Your task to perform on an android device: see creations saved in the google photos Image 0: 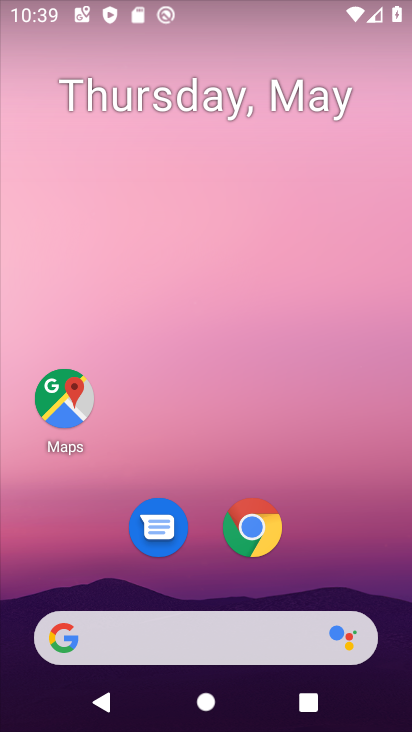
Step 0: drag from (335, 527) to (356, 128)
Your task to perform on an android device: see creations saved in the google photos Image 1: 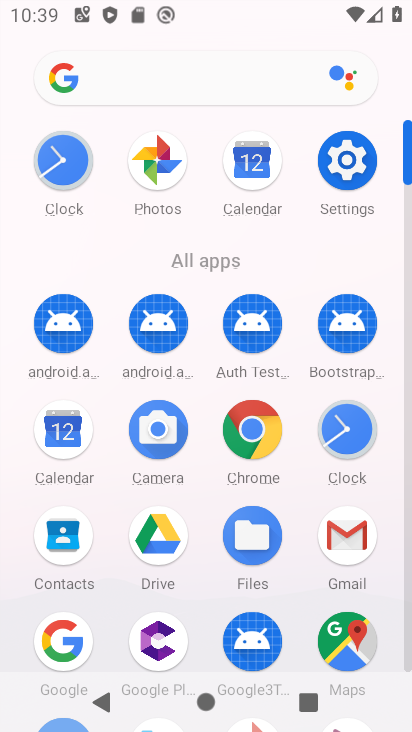
Step 1: drag from (290, 587) to (322, 301)
Your task to perform on an android device: see creations saved in the google photos Image 2: 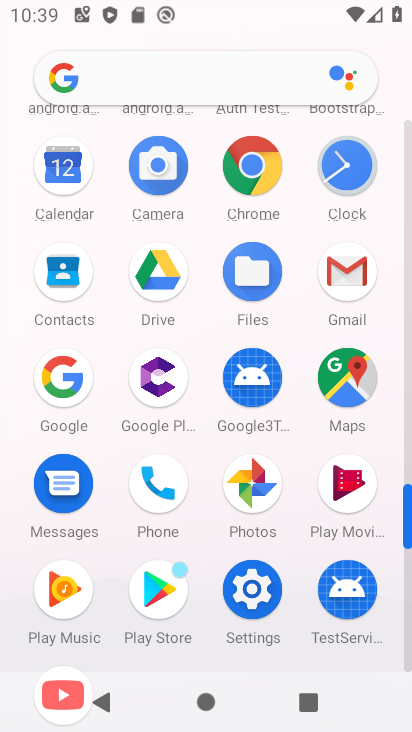
Step 2: click (252, 483)
Your task to perform on an android device: see creations saved in the google photos Image 3: 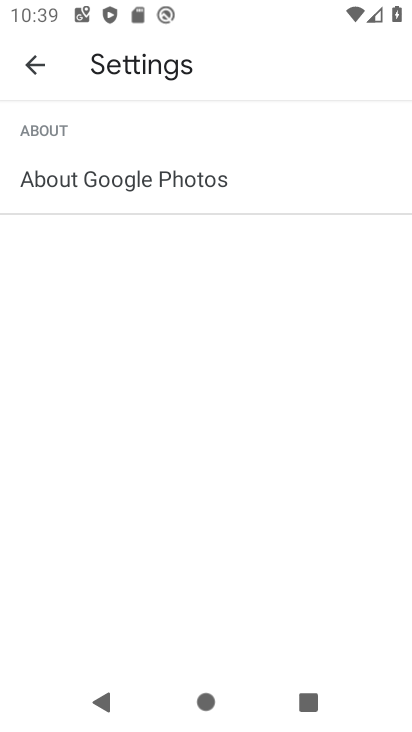
Step 3: click (23, 60)
Your task to perform on an android device: see creations saved in the google photos Image 4: 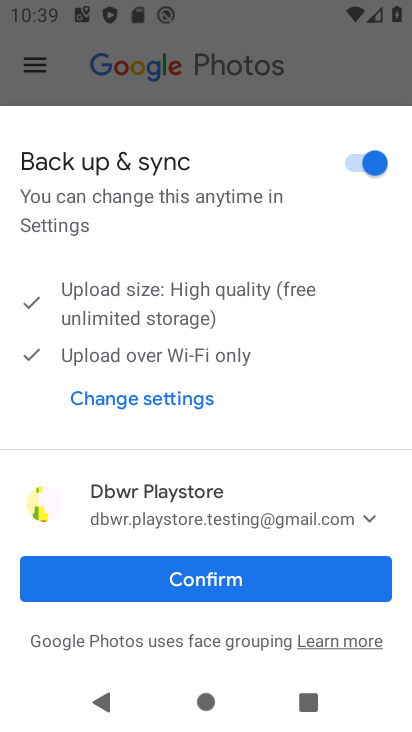
Step 4: click (254, 584)
Your task to perform on an android device: see creations saved in the google photos Image 5: 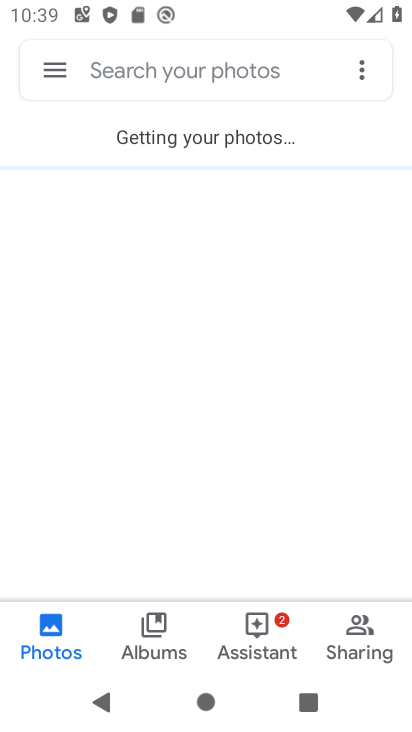
Step 5: click (372, 634)
Your task to perform on an android device: see creations saved in the google photos Image 6: 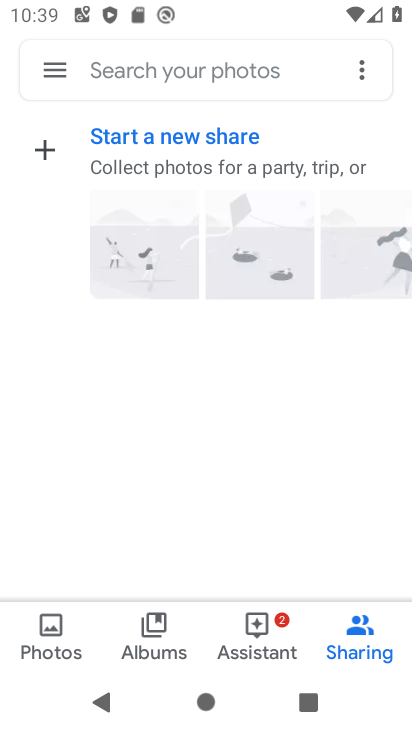
Step 6: click (254, 641)
Your task to perform on an android device: see creations saved in the google photos Image 7: 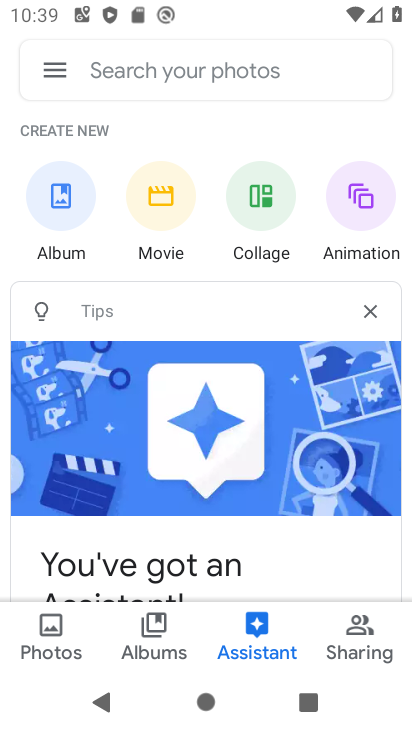
Step 7: drag from (343, 179) to (1, 242)
Your task to perform on an android device: see creations saved in the google photos Image 8: 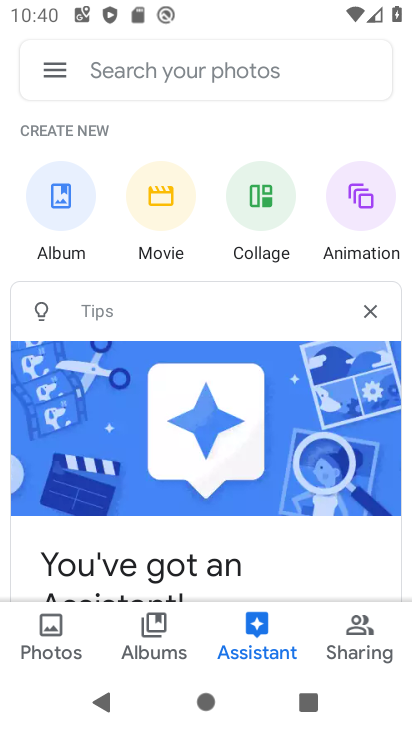
Step 8: drag from (279, 194) to (80, 205)
Your task to perform on an android device: see creations saved in the google photos Image 9: 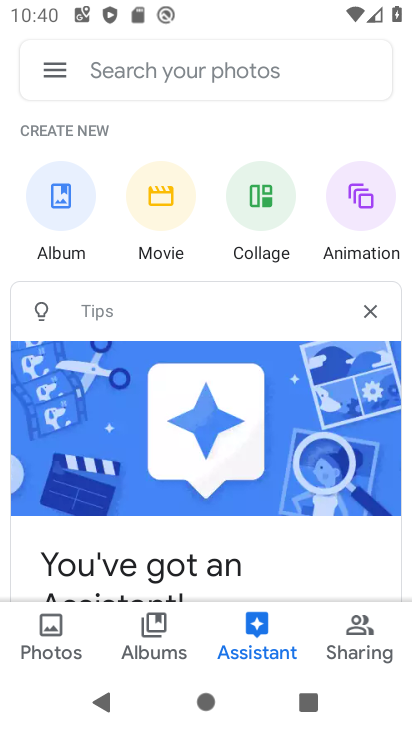
Step 9: drag from (219, 502) to (272, 51)
Your task to perform on an android device: see creations saved in the google photos Image 10: 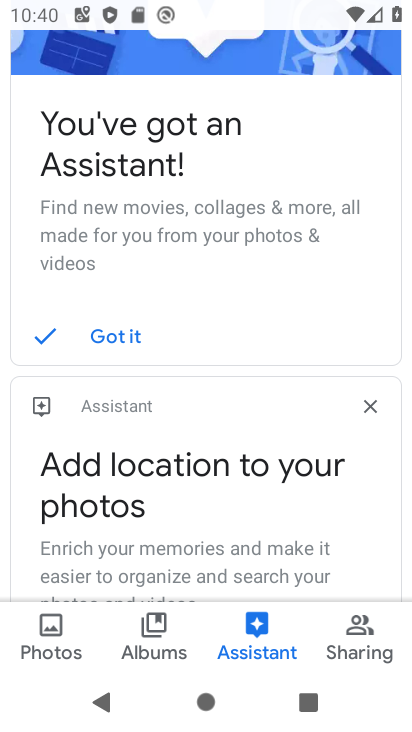
Step 10: click (130, 653)
Your task to perform on an android device: see creations saved in the google photos Image 11: 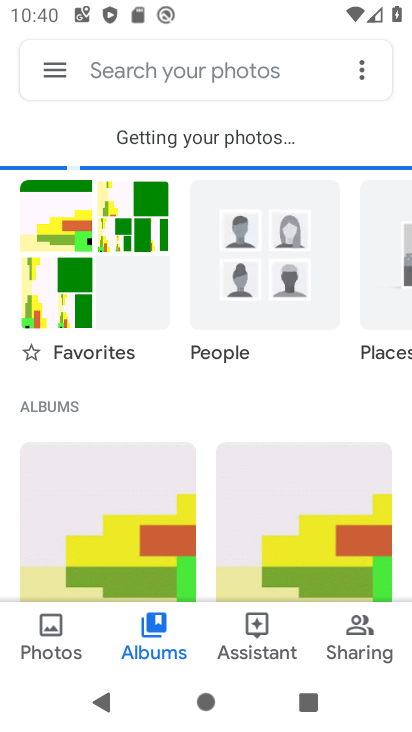
Step 11: drag from (309, 243) to (9, 308)
Your task to perform on an android device: see creations saved in the google photos Image 12: 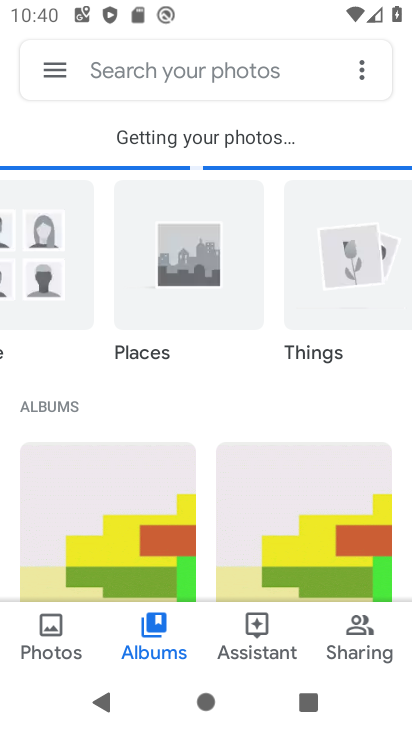
Step 12: click (63, 638)
Your task to perform on an android device: see creations saved in the google photos Image 13: 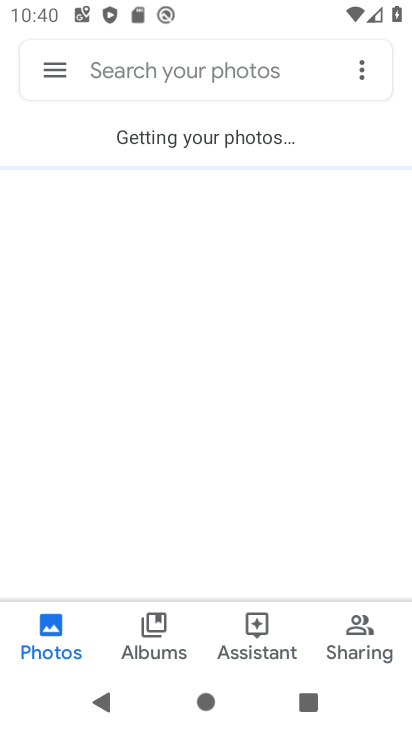
Step 13: task complete